Your task to perform on an android device: toggle notification dots Image 0: 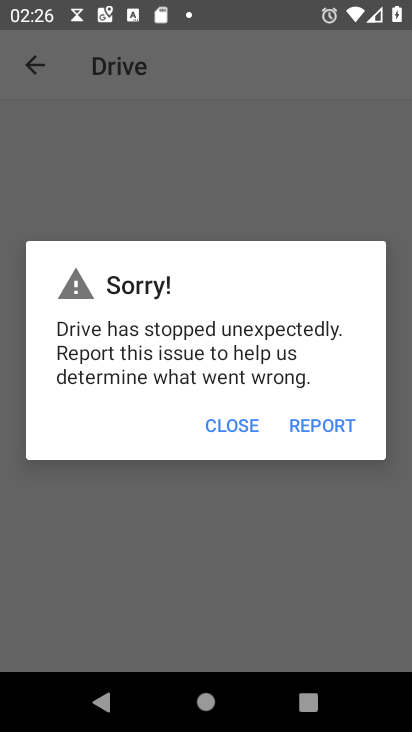
Step 0: press home button
Your task to perform on an android device: toggle notification dots Image 1: 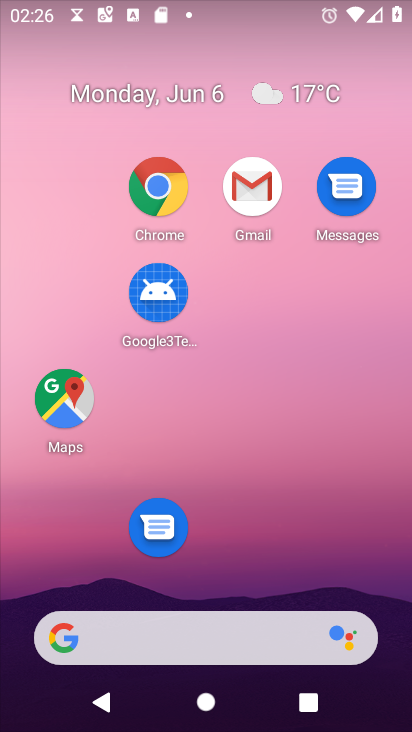
Step 1: drag from (330, 519) to (394, 143)
Your task to perform on an android device: toggle notification dots Image 2: 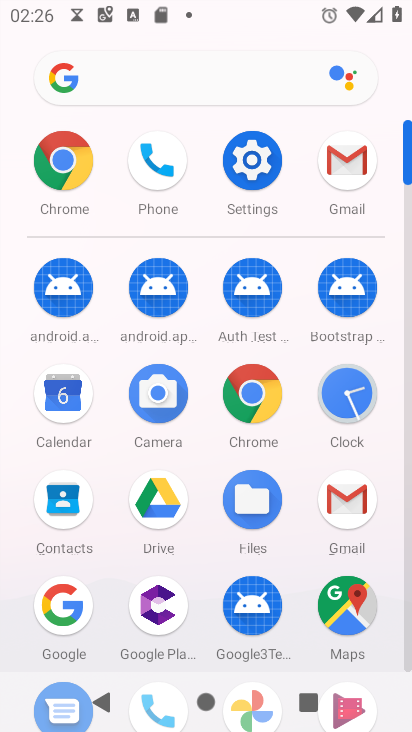
Step 2: click (245, 160)
Your task to perform on an android device: toggle notification dots Image 3: 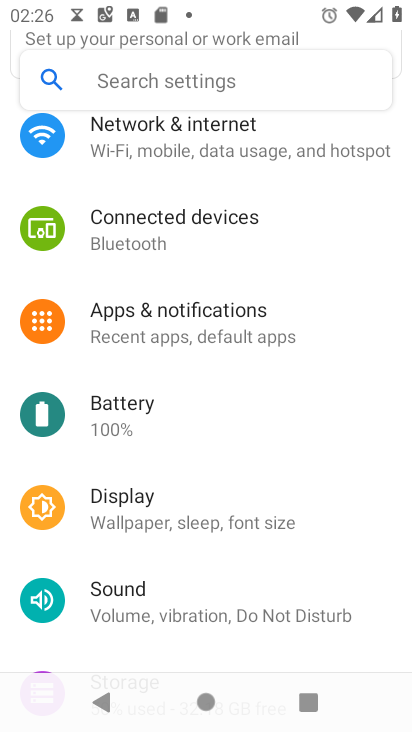
Step 3: click (185, 316)
Your task to perform on an android device: toggle notification dots Image 4: 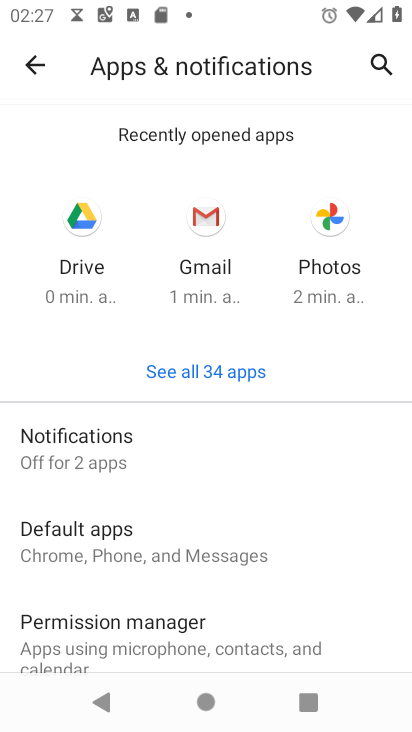
Step 4: drag from (349, 639) to (320, 263)
Your task to perform on an android device: toggle notification dots Image 5: 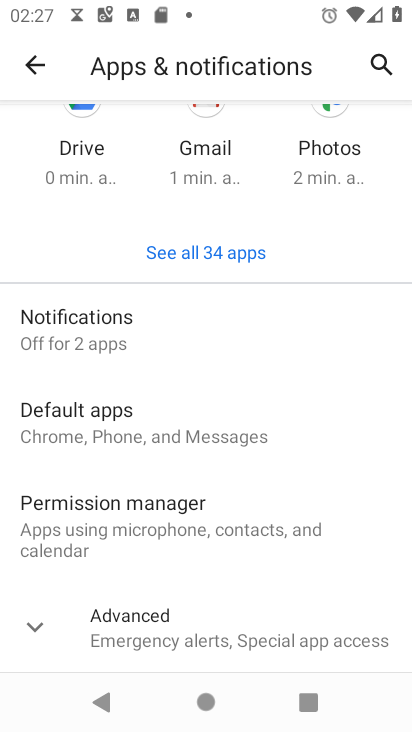
Step 5: click (99, 311)
Your task to perform on an android device: toggle notification dots Image 6: 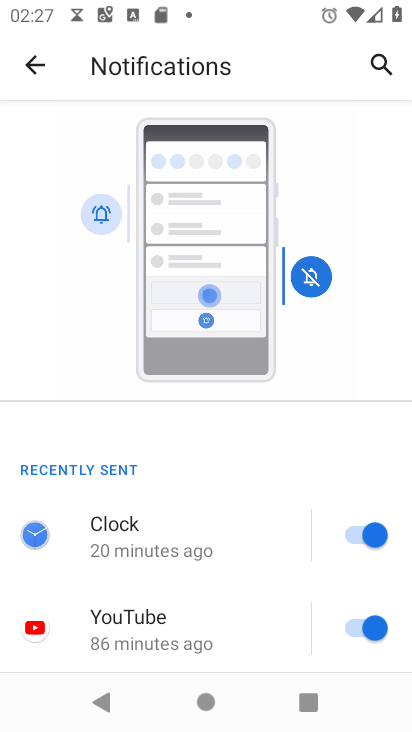
Step 6: drag from (274, 675) to (229, 247)
Your task to perform on an android device: toggle notification dots Image 7: 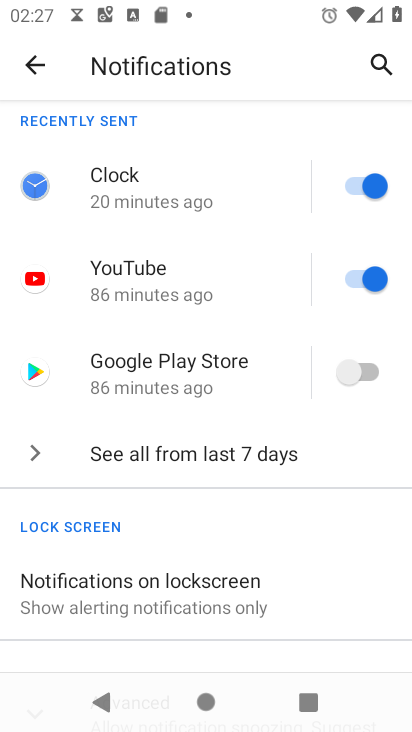
Step 7: drag from (344, 632) to (289, 314)
Your task to perform on an android device: toggle notification dots Image 8: 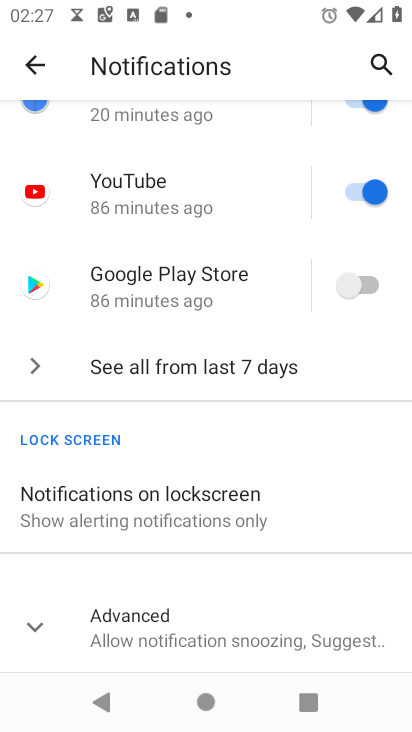
Step 8: click (163, 592)
Your task to perform on an android device: toggle notification dots Image 9: 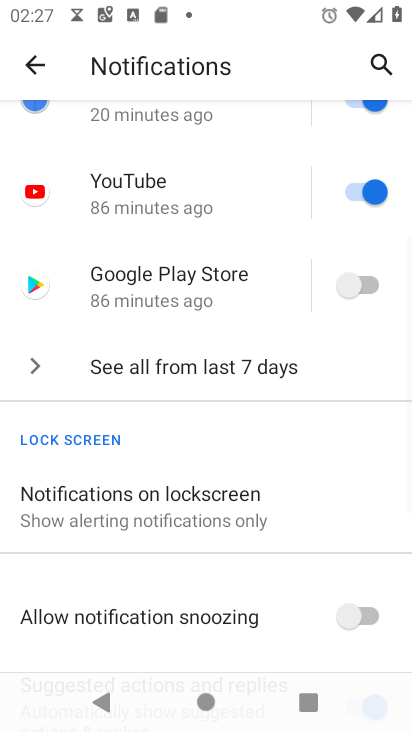
Step 9: click (377, 638)
Your task to perform on an android device: toggle notification dots Image 10: 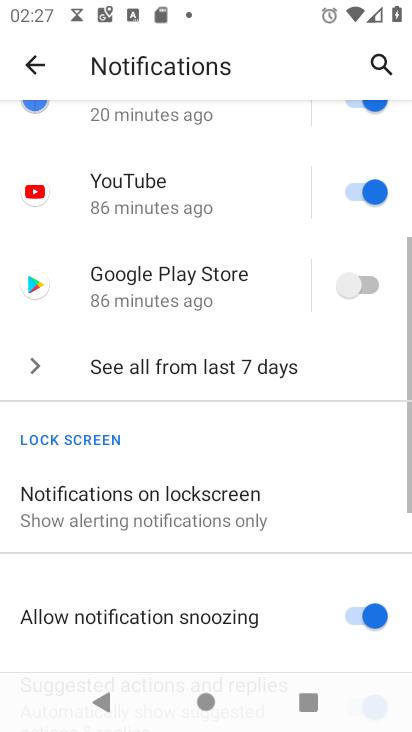
Step 10: click (363, 601)
Your task to perform on an android device: toggle notification dots Image 11: 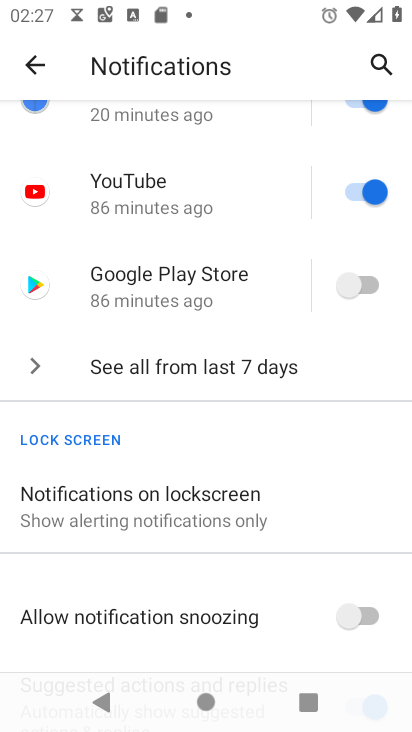
Step 11: drag from (408, 648) to (401, 325)
Your task to perform on an android device: toggle notification dots Image 12: 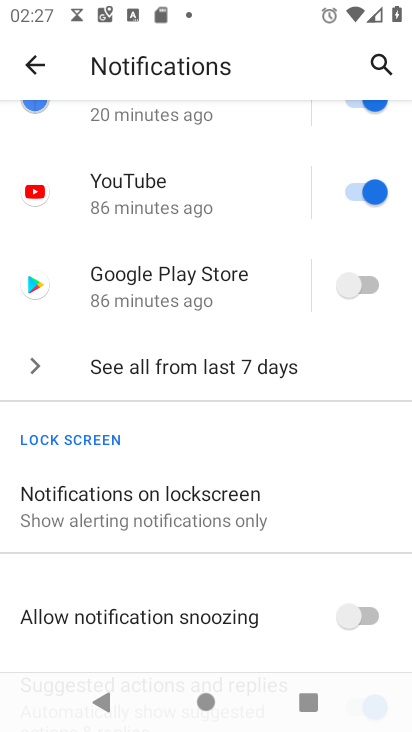
Step 12: drag from (251, 626) to (241, 328)
Your task to perform on an android device: toggle notification dots Image 13: 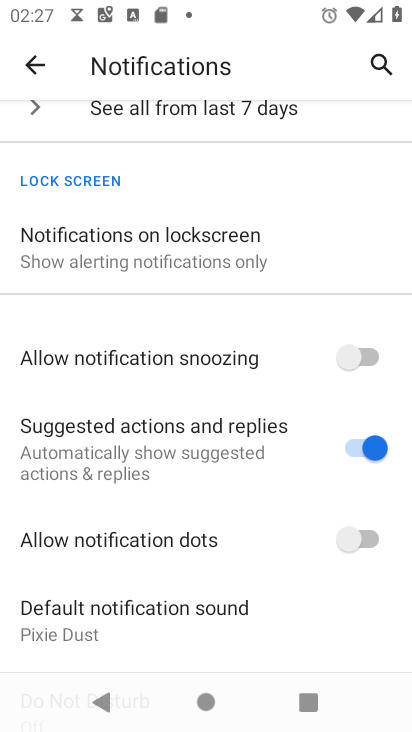
Step 13: click (376, 538)
Your task to perform on an android device: toggle notification dots Image 14: 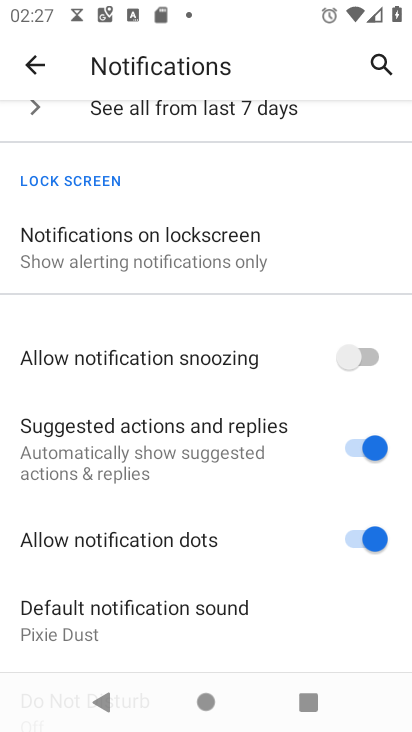
Step 14: task complete